Your task to perform on an android device: Show me recent news Image 0: 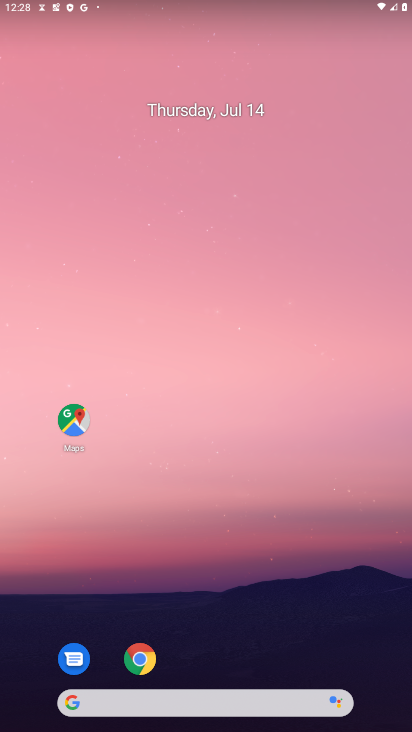
Step 0: click (104, 712)
Your task to perform on an android device: Show me recent news Image 1: 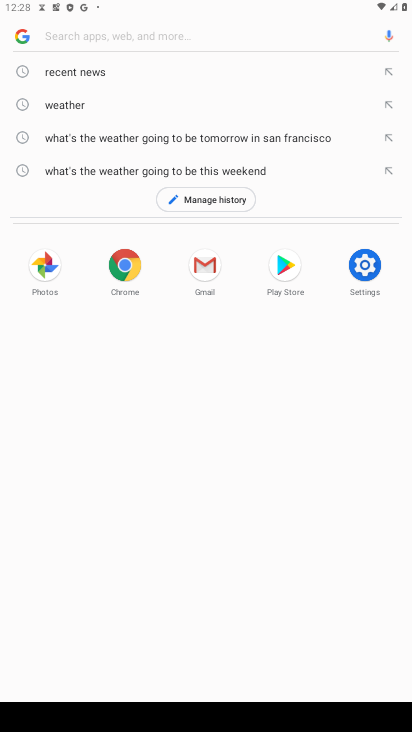
Step 1: type "Show me recent news"
Your task to perform on an android device: Show me recent news Image 2: 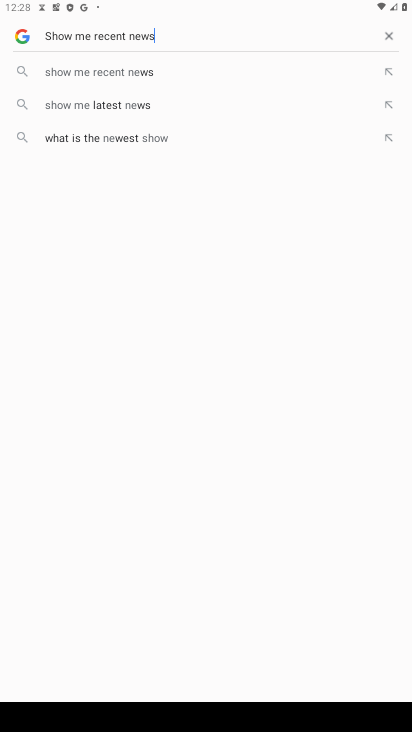
Step 2: type ""
Your task to perform on an android device: Show me recent news Image 3: 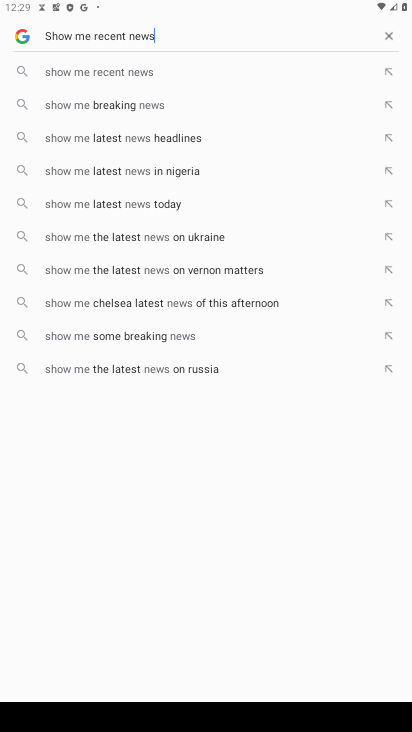
Step 3: click (130, 72)
Your task to perform on an android device: Show me recent news Image 4: 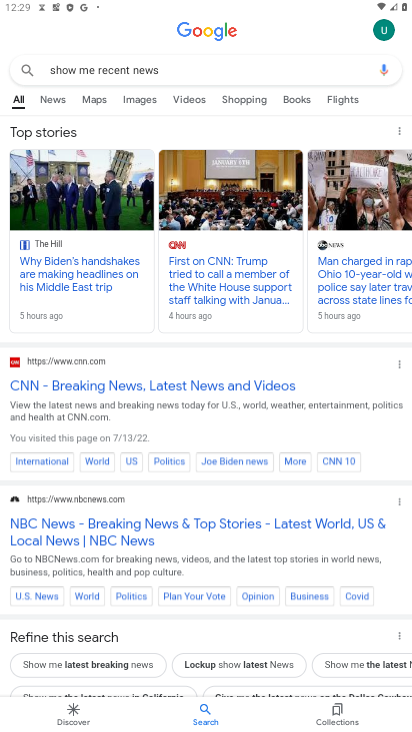
Step 4: task complete